Your task to perform on an android device: install app "Walmart Shopping & Grocery" Image 0: 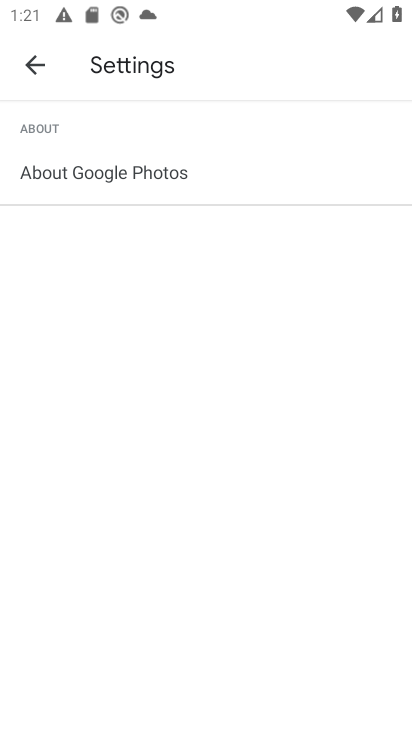
Step 0: press home button
Your task to perform on an android device: install app "Walmart Shopping & Grocery" Image 1: 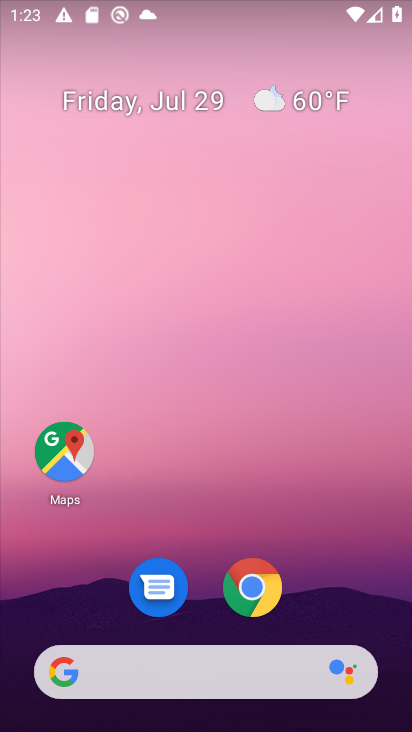
Step 1: drag from (135, 598) to (211, 115)
Your task to perform on an android device: install app "Walmart Shopping & Grocery" Image 2: 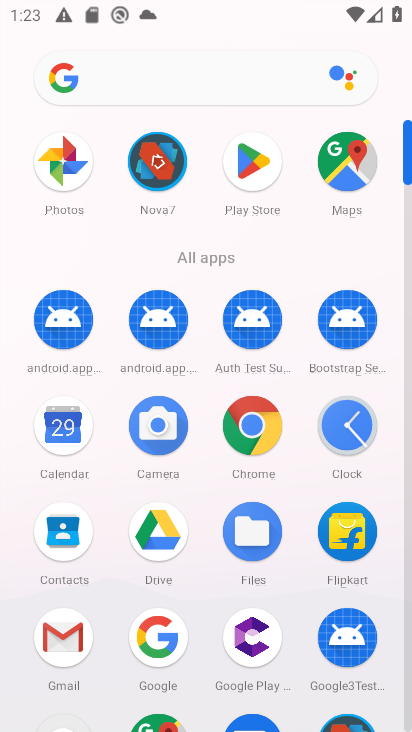
Step 2: click (262, 140)
Your task to perform on an android device: install app "Walmart Shopping & Grocery" Image 3: 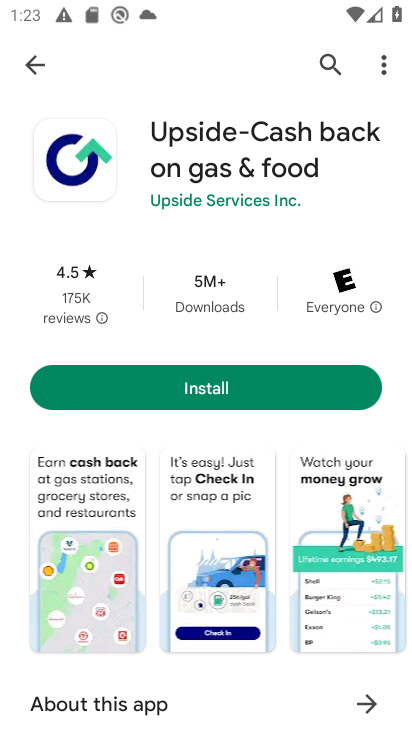
Step 3: click (327, 61)
Your task to perform on an android device: install app "Walmart Shopping & Grocery" Image 4: 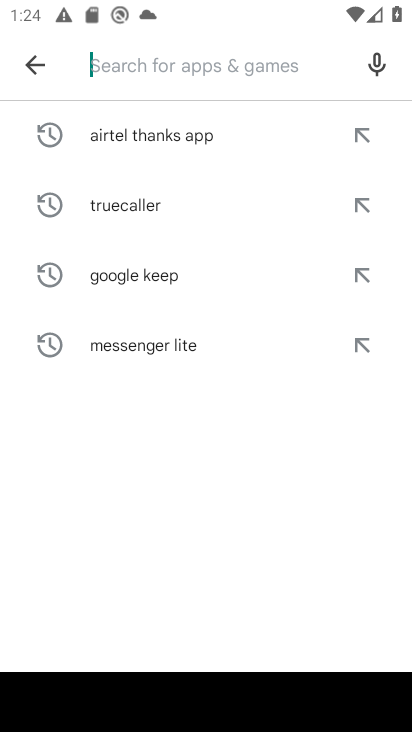
Step 4: click (171, 62)
Your task to perform on an android device: install app "Walmart Shopping & Grocery" Image 5: 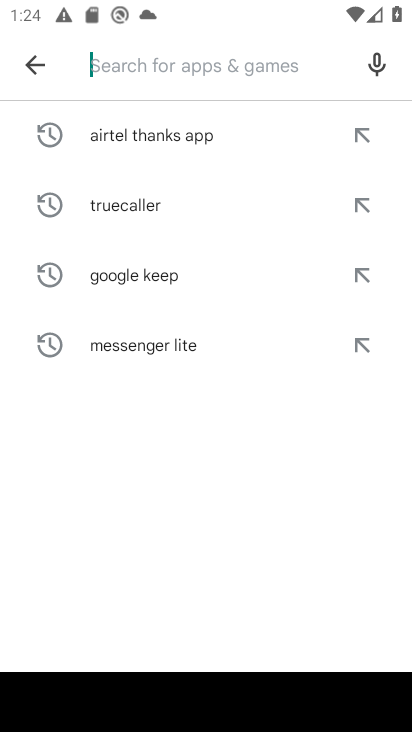
Step 5: type "Walmart Shopping & Grocery"
Your task to perform on an android device: install app "Walmart Shopping & Grocery" Image 6: 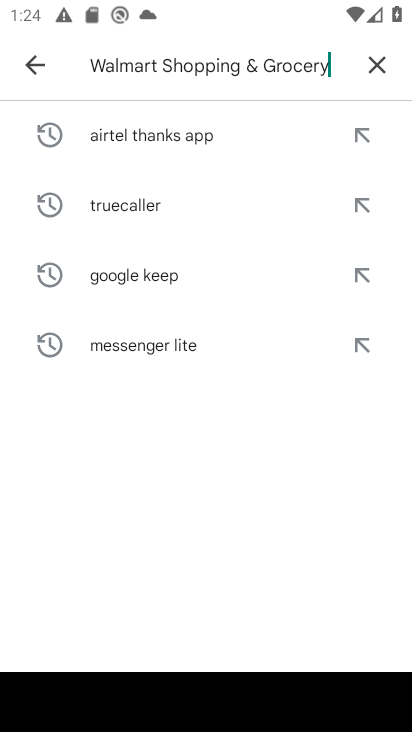
Step 6: type ""
Your task to perform on an android device: install app "Walmart Shopping & Grocery" Image 7: 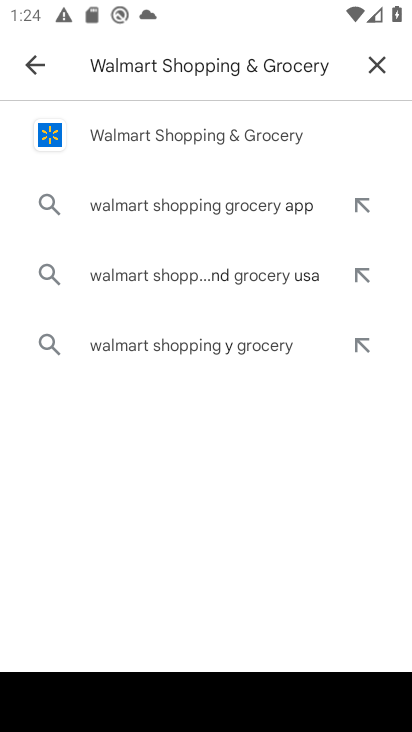
Step 7: click (219, 127)
Your task to perform on an android device: install app "Walmart Shopping & Grocery" Image 8: 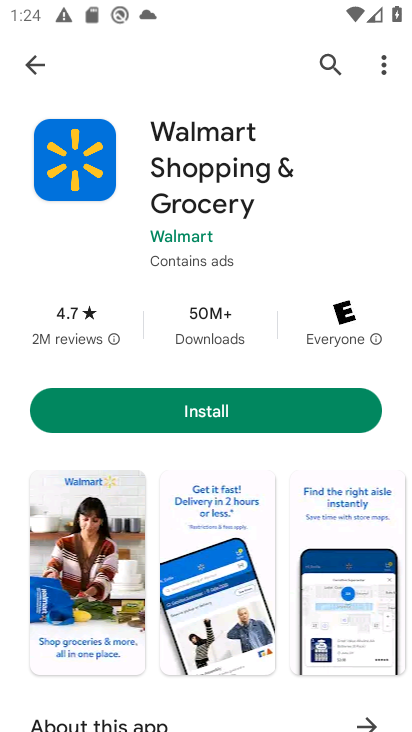
Step 8: click (289, 408)
Your task to perform on an android device: install app "Walmart Shopping & Grocery" Image 9: 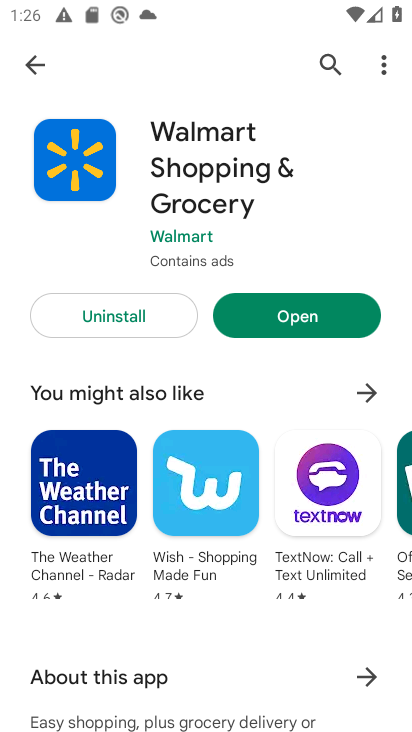
Step 9: task complete